Your task to perform on an android device: Go to calendar. Show me events next week Image 0: 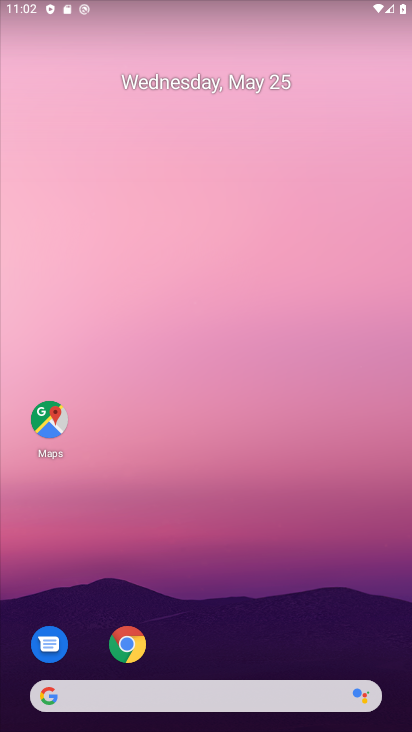
Step 0: drag from (257, 603) to (296, 236)
Your task to perform on an android device: Go to calendar. Show me events next week Image 1: 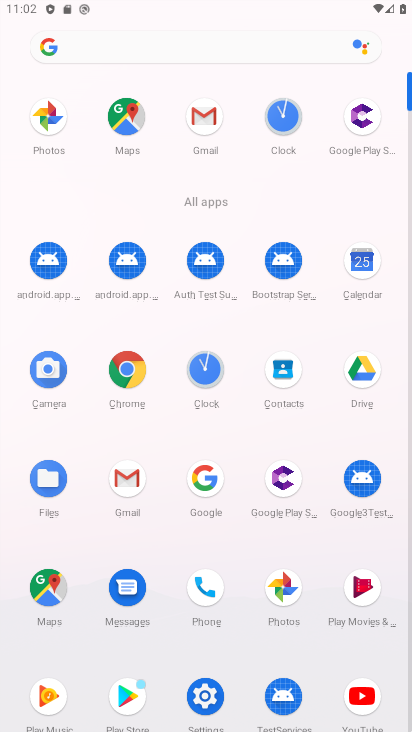
Step 1: click (362, 263)
Your task to perform on an android device: Go to calendar. Show me events next week Image 2: 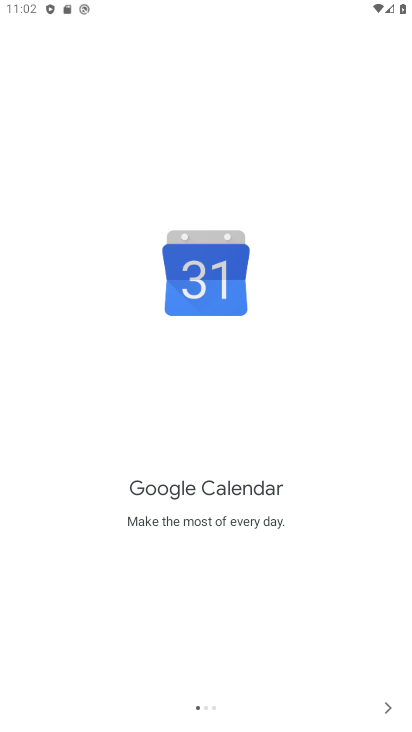
Step 2: click (390, 711)
Your task to perform on an android device: Go to calendar. Show me events next week Image 3: 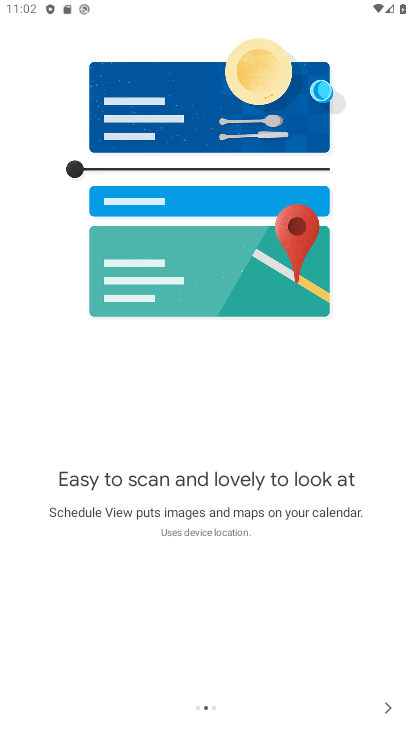
Step 3: click (390, 711)
Your task to perform on an android device: Go to calendar. Show me events next week Image 4: 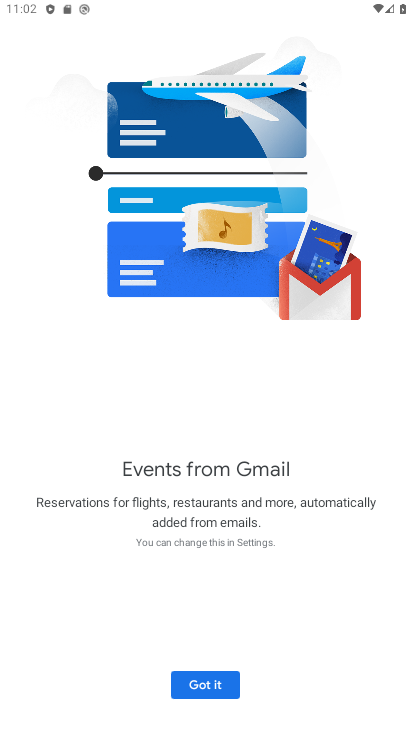
Step 4: click (214, 680)
Your task to perform on an android device: Go to calendar. Show me events next week Image 5: 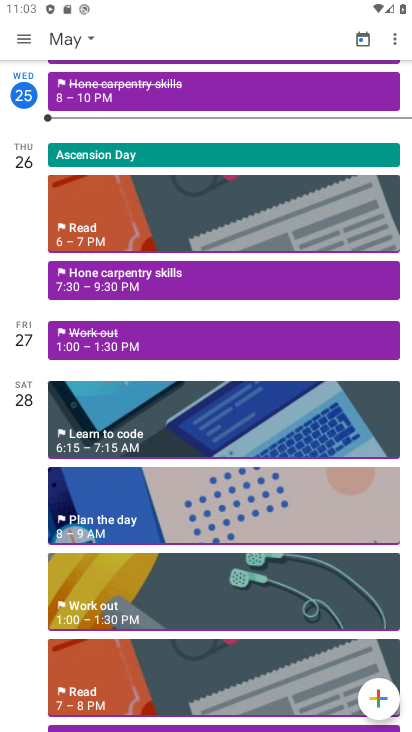
Step 5: click (86, 41)
Your task to perform on an android device: Go to calendar. Show me events next week Image 6: 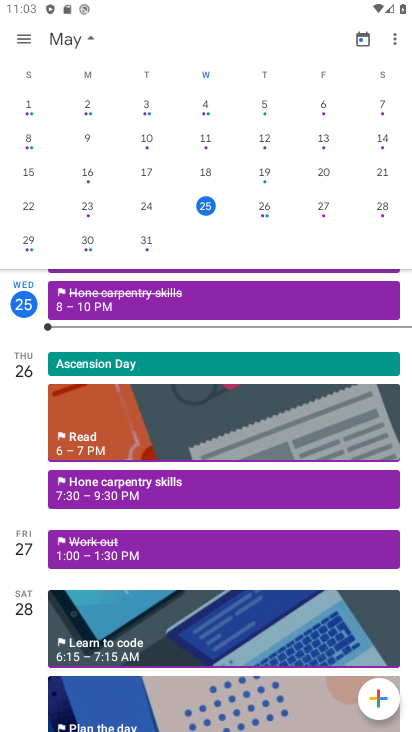
Step 6: click (95, 246)
Your task to perform on an android device: Go to calendar. Show me events next week Image 7: 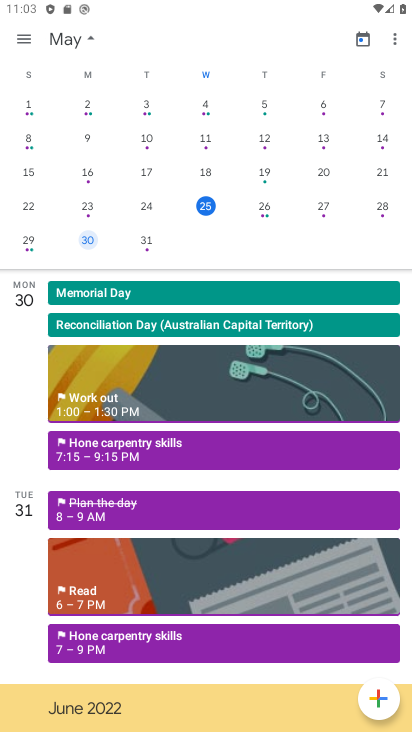
Step 7: click (29, 41)
Your task to perform on an android device: Go to calendar. Show me events next week Image 8: 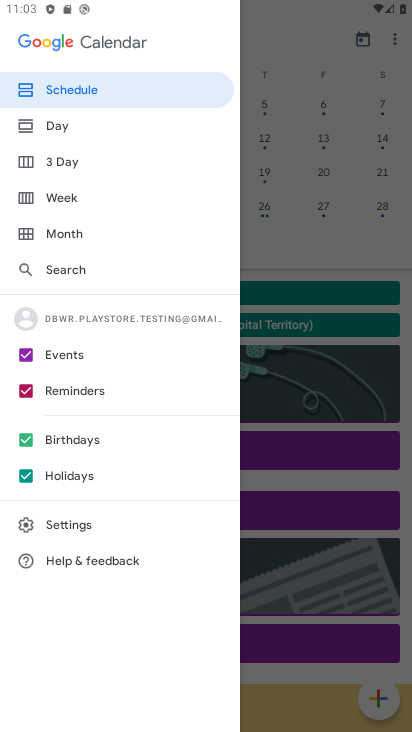
Step 8: click (63, 195)
Your task to perform on an android device: Go to calendar. Show me events next week Image 9: 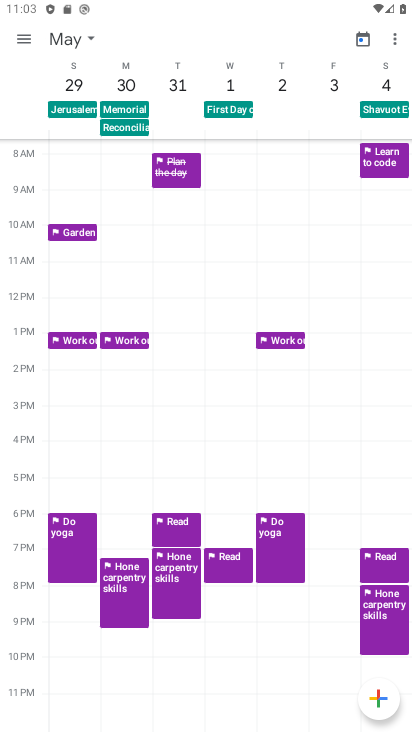
Step 9: task complete